Your task to perform on an android device: see tabs open on other devices in the chrome app Image 0: 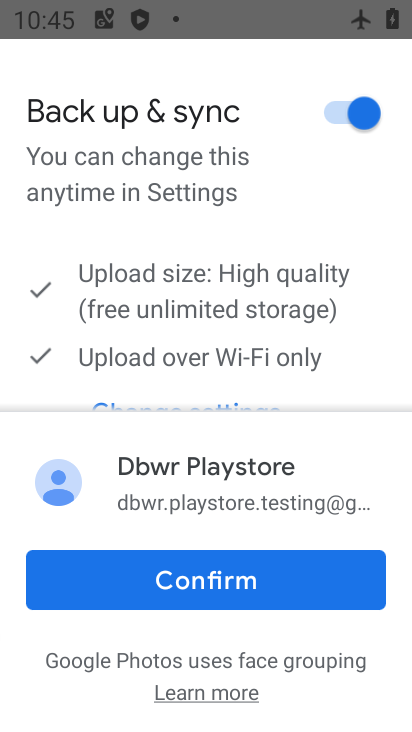
Step 0: click (295, 552)
Your task to perform on an android device: see tabs open on other devices in the chrome app Image 1: 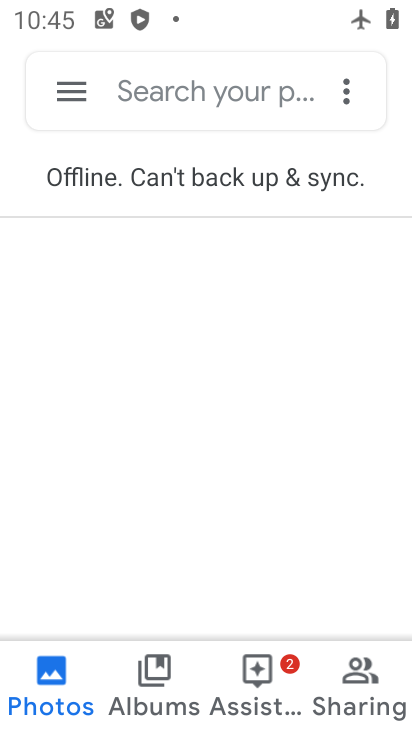
Step 1: press home button
Your task to perform on an android device: see tabs open on other devices in the chrome app Image 2: 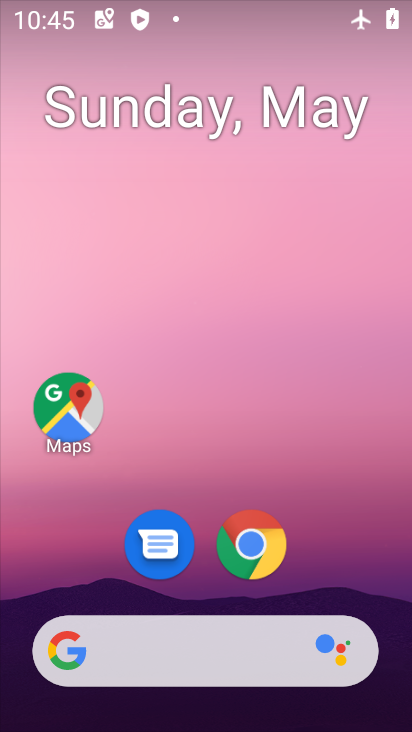
Step 2: click (258, 531)
Your task to perform on an android device: see tabs open on other devices in the chrome app Image 3: 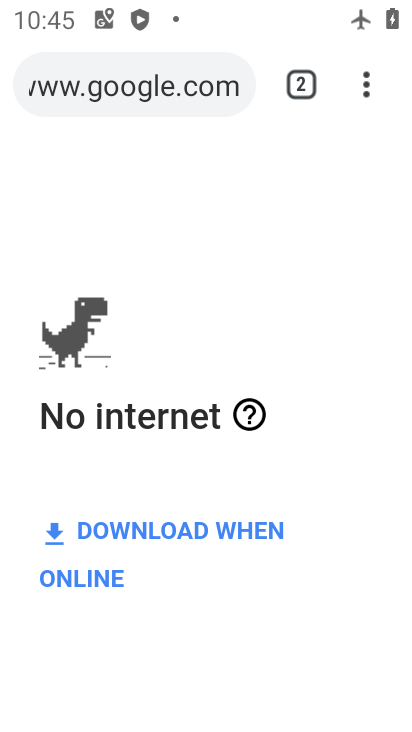
Step 3: click (364, 81)
Your task to perform on an android device: see tabs open on other devices in the chrome app Image 4: 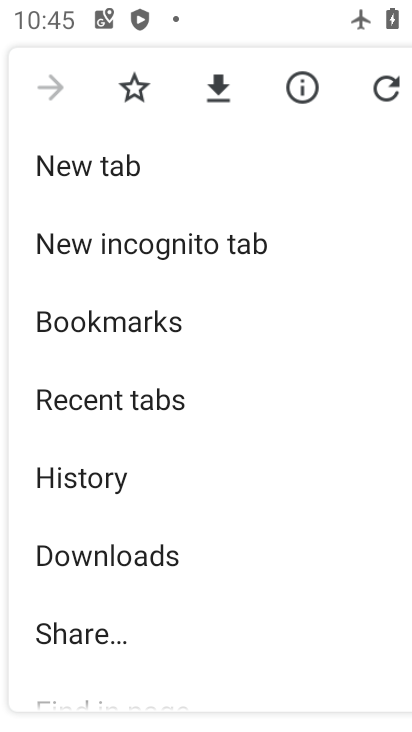
Step 4: click (134, 148)
Your task to perform on an android device: see tabs open on other devices in the chrome app Image 5: 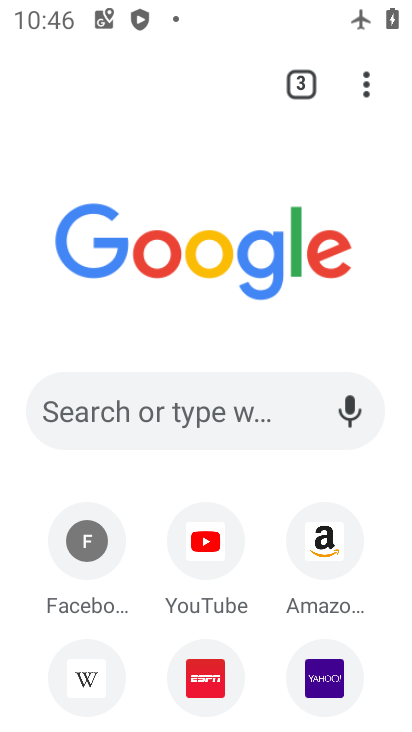
Step 5: task complete